Your task to perform on an android device: find photos in the google photos app Image 0: 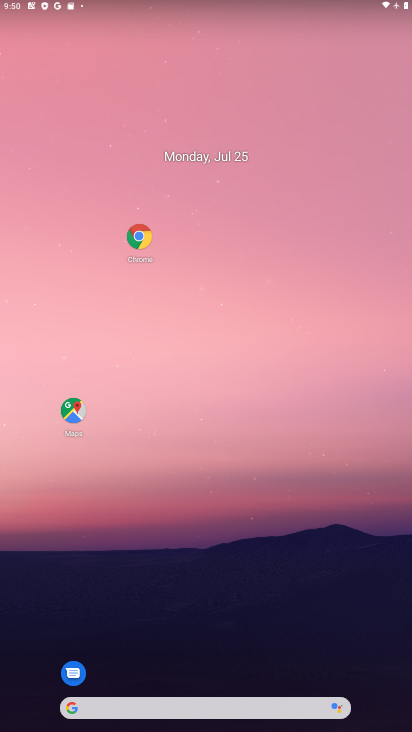
Step 0: drag from (216, 674) to (193, 38)
Your task to perform on an android device: find photos in the google photos app Image 1: 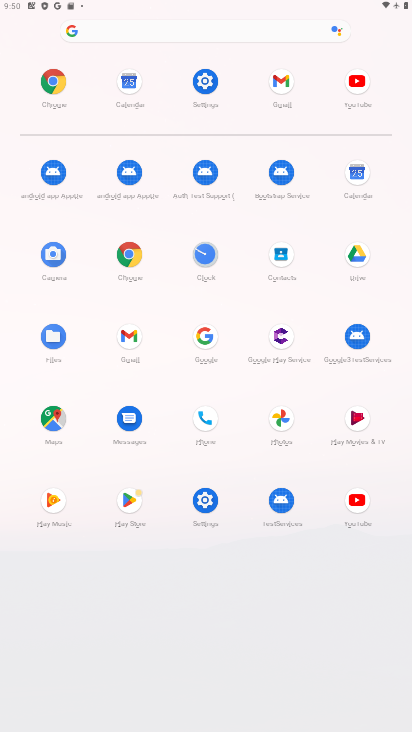
Step 1: click (276, 403)
Your task to perform on an android device: find photos in the google photos app Image 2: 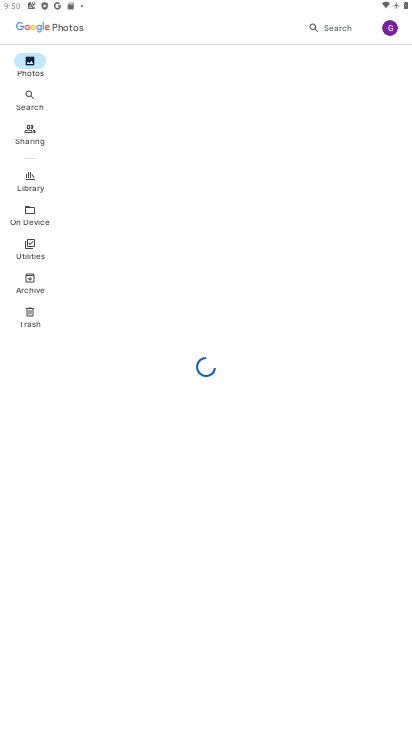
Step 2: task complete